Your task to perform on an android device: Do I have any events this weekend? Image 0: 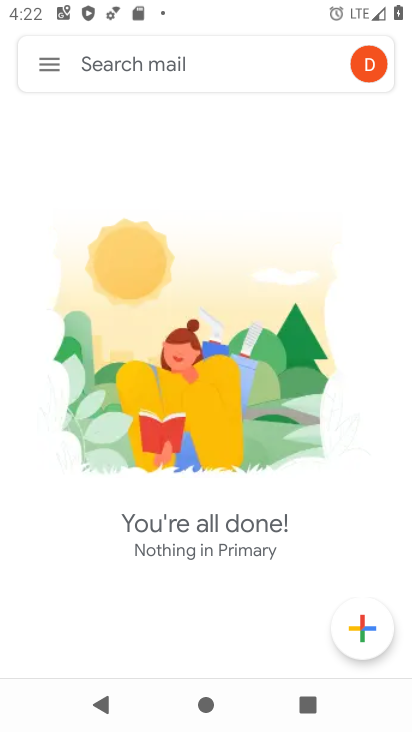
Step 0: press home button
Your task to perform on an android device: Do I have any events this weekend? Image 1: 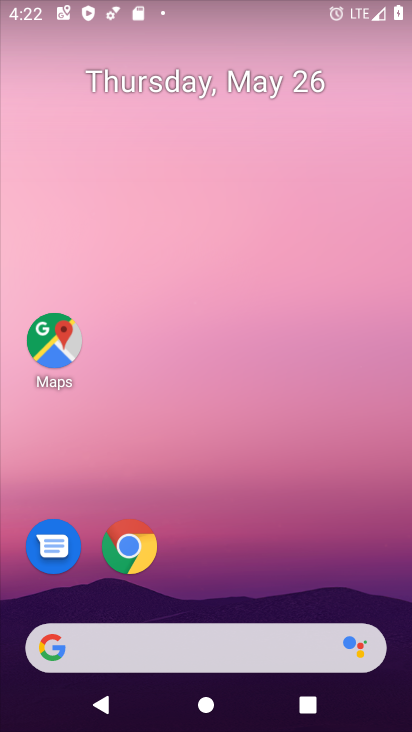
Step 1: drag from (241, 567) to (314, 50)
Your task to perform on an android device: Do I have any events this weekend? Image 2: 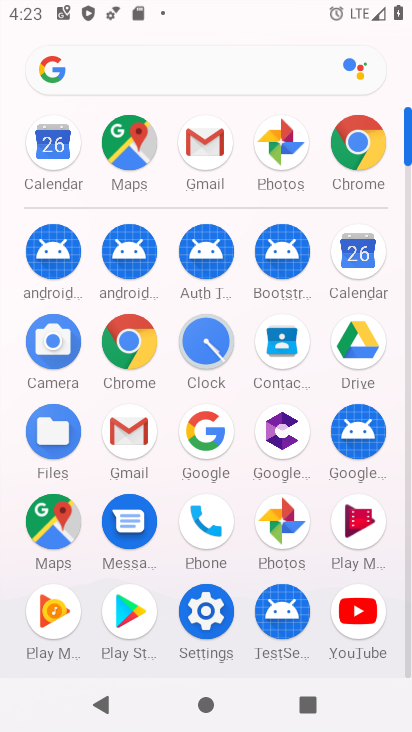
Step 2: click (218, 340)
Your task to perform on an android device: Do I have any events this weekend? Image 3: 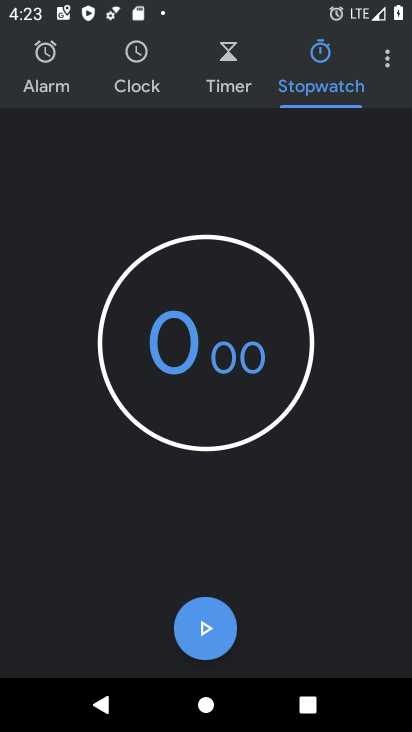
Step 3: press back button
Your task to perform on an android device: Do I have any events this weekend? Image 4: 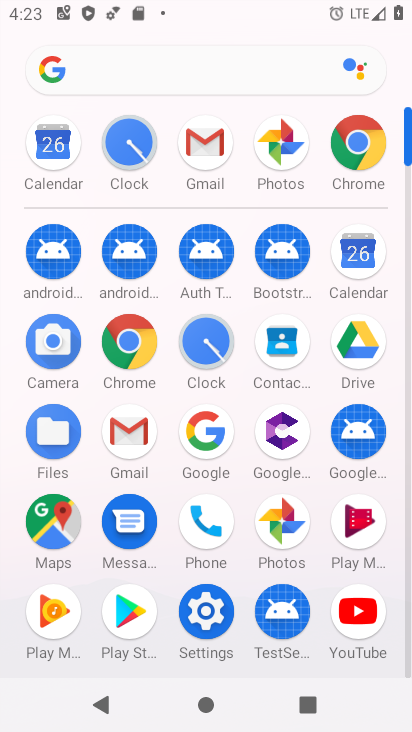
Step 4: click (362, 258)
Your task to perform on an android device: Do I have any events this weekend? Image 5: 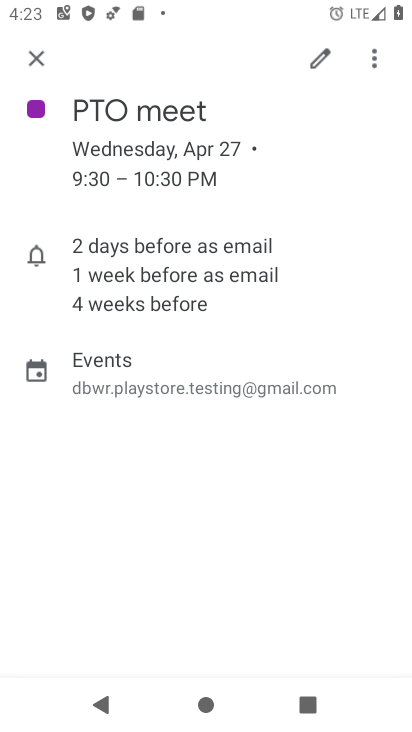
Step 5: click (34, 51)
Your task to perform on an android device: Do I have any events this weekend? Image 6: 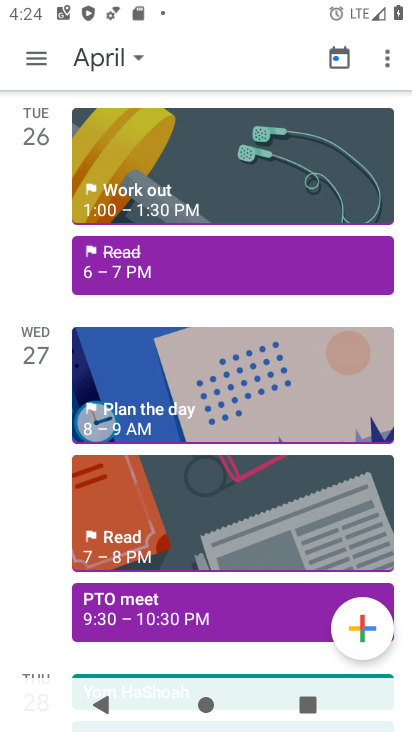
Step 6: drag from (224, 559) to (326, 70)
Your task to perform on an android device: Do I have any events this weekend? Image 7: 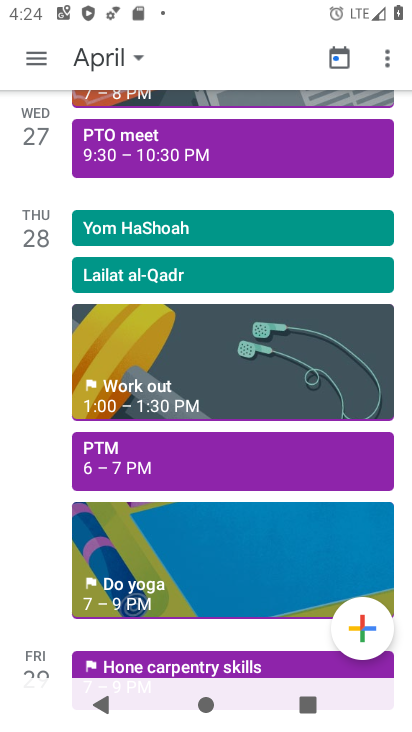
Step 7: drag from (268, 566) to (289, 129)
Your task to perform on an android device: Do I have any events this weekend? Image 8: 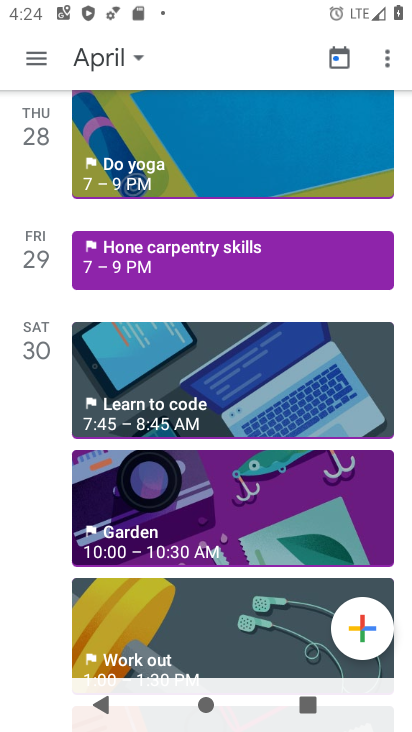
Step 8: click (141, 635)
Your task to perform on an android device: Do I have any events this weekend? Image 9: 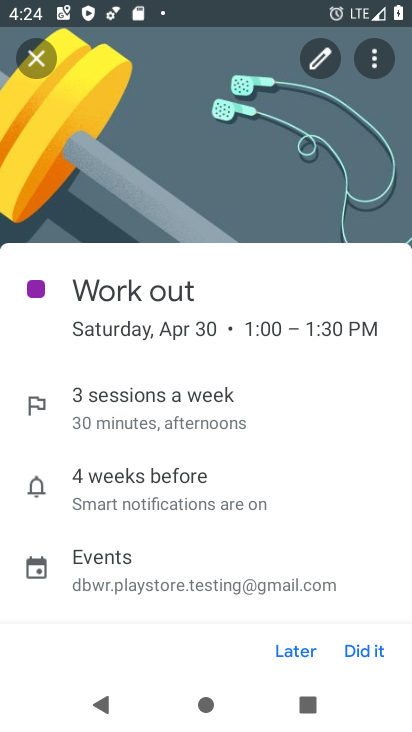
Step 9: task complete